Your task to perform on an android device: Is it going to rain today? Image 0: 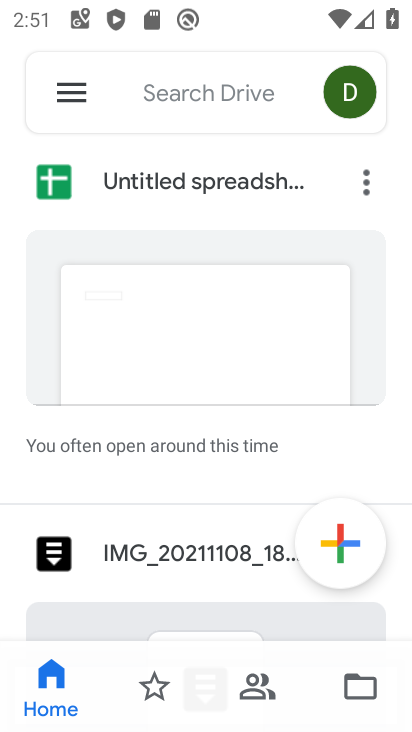
Step 0: press home button
Your task to perform on an android device: Is it going to rain today? Image 1: 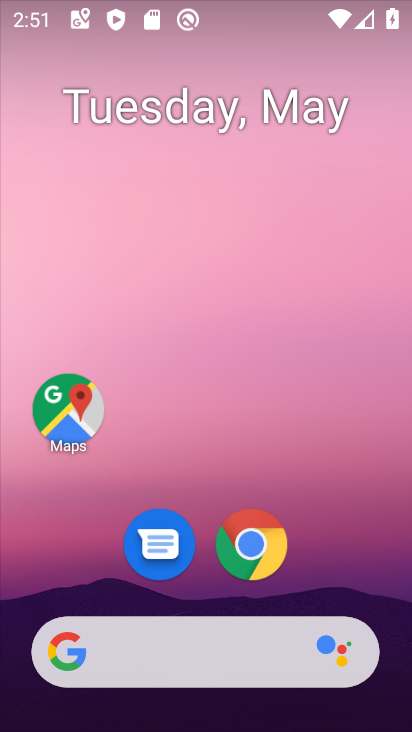
Step 1: drag from (343, 553) to (272, 55)
Your task to perform on an android device: Is it going to rain today? Image 2: 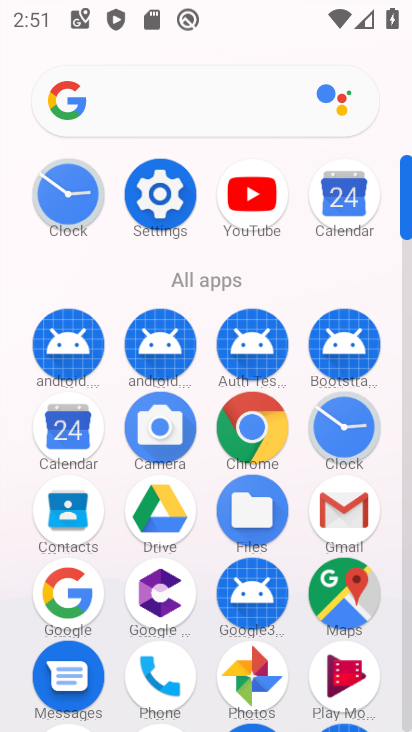
Step 2: click (60, 592)
Your task to perform on an android device: Is it going to rain today? Image 3: 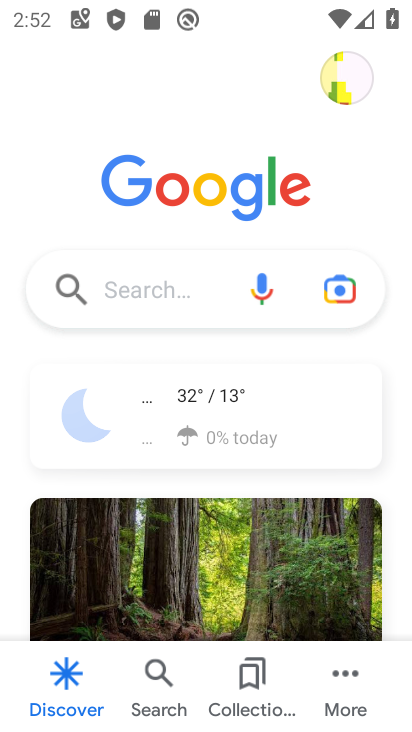
Step 3: click (211, 405)
Your task to perform on an android device: Is it going to rain today? Image 4: 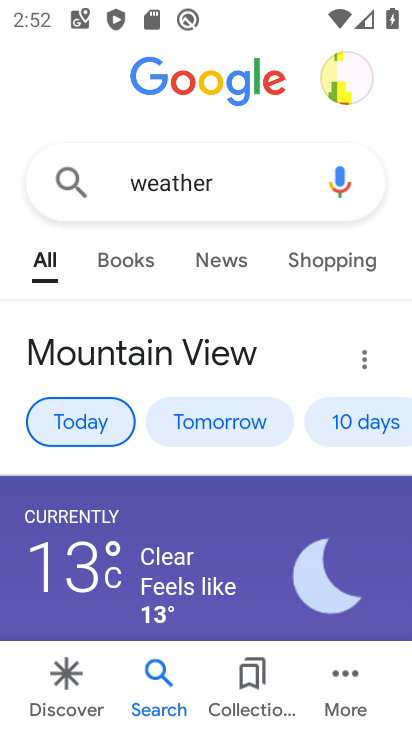
Step 4: task complete